Your task to perform on an android device: Go to internet settings Image 0: 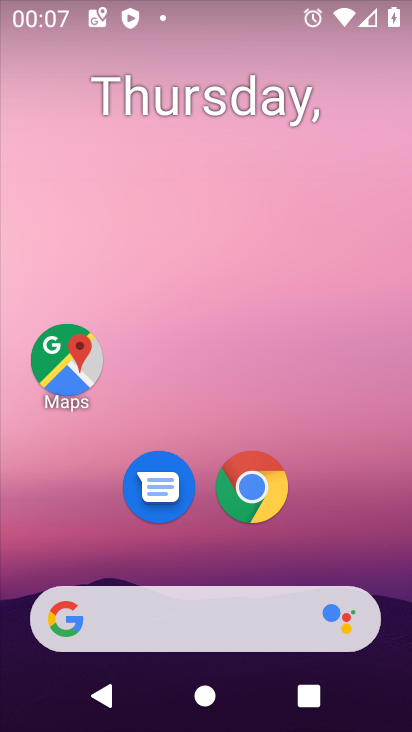
Step 0: drag from (380, 574) to (397, 39)
Your task to perform on an android device: Go to internet settings Image 1: 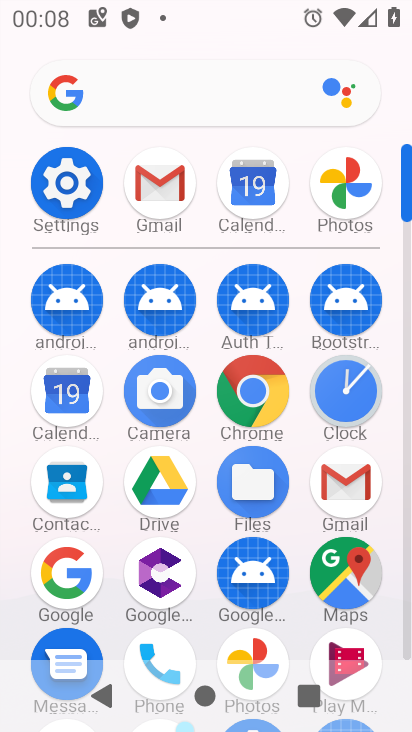
Step 1: click (66, 182)
Your task to perform on an android device: Go to internet settings Image 2: 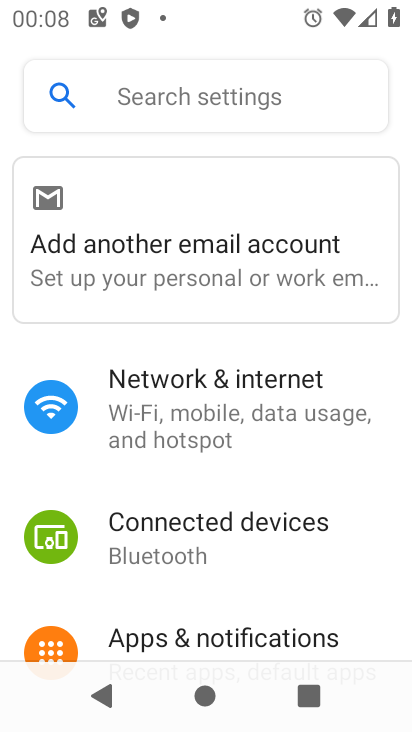
Step 2: click (178, 417)
Your task to perform on an android device: Go to internet settings Image 3: 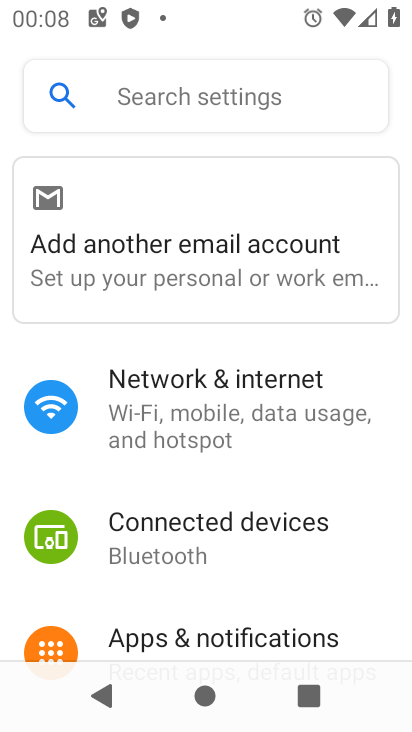
Step 3: click (209, 422)
Your task to perform on an android device: Go to internet settings Image 4: 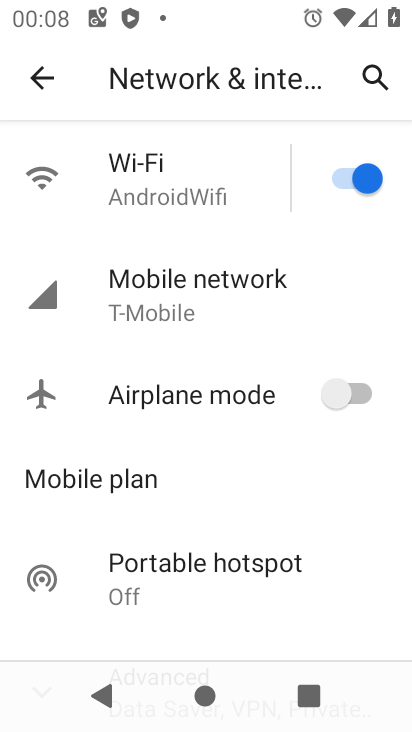
Step 4: task complete